Your task to perform on an android device: Show me recent news Image 0: 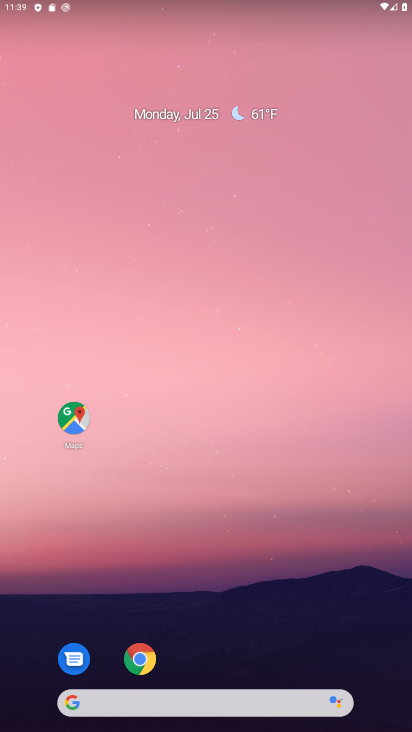
Step 0: drag from (2, 238) to (384, 280)
Your task to perform on an android device: Show me recent news Image 1: 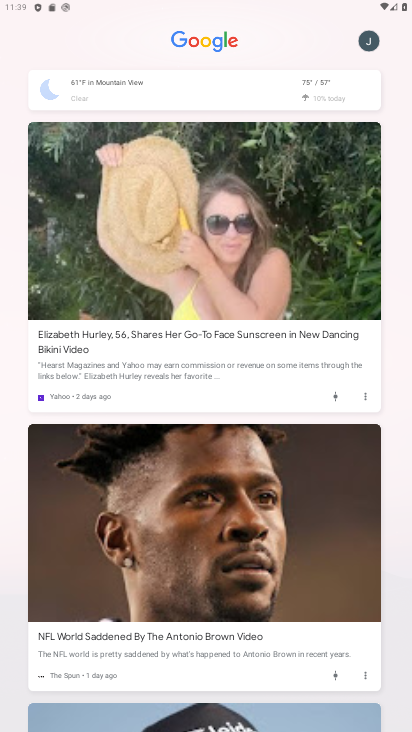
Step 1: task complete